Your task to perform on an android device: show emergency info Image 0: 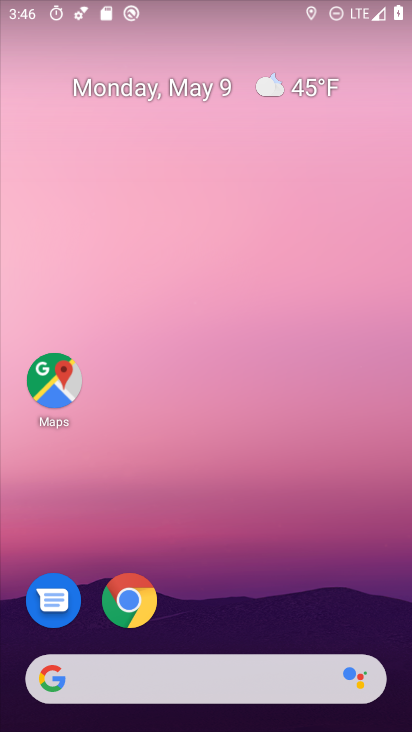
Step 0: drag from (232, 619) to (324, 10)
Your task to perform on an android device: show emergency info Image 1: 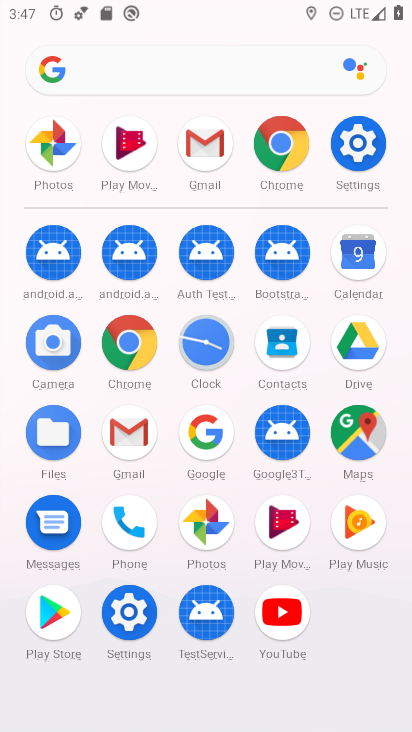
Step 1: click (363, 156)
Your task to perform on an android device: show emergency info Image 2: 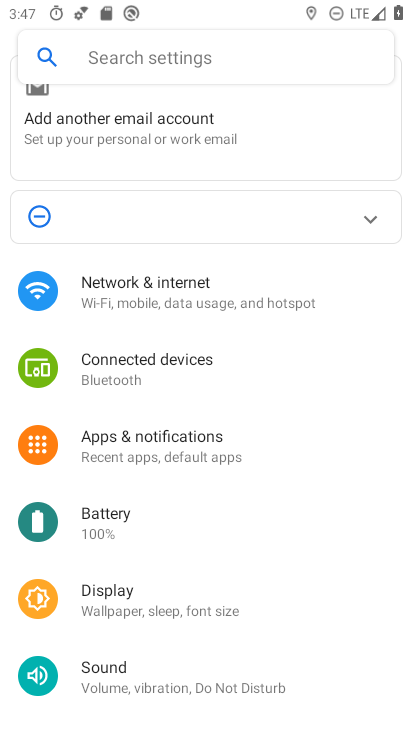
Step 2: drag from (207, 583) to (242, 132)
Your task to perform on an android device: show emergency info Image 3: 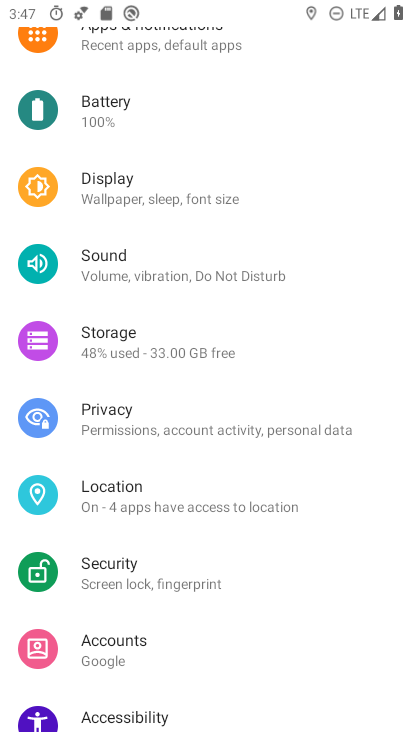
Step 3: drag from (157, 626) to (201, 160)
Your task to perform on an android device: show emergency info Image 4: 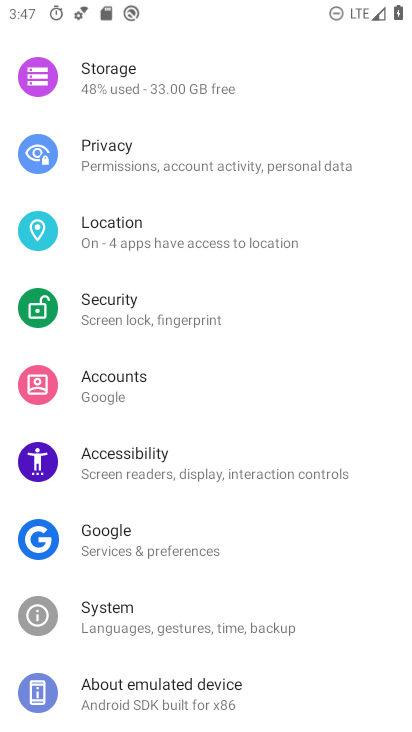
Step 4: click (167, 685)
Your task to perform on an android device: show emergency info Image 5: 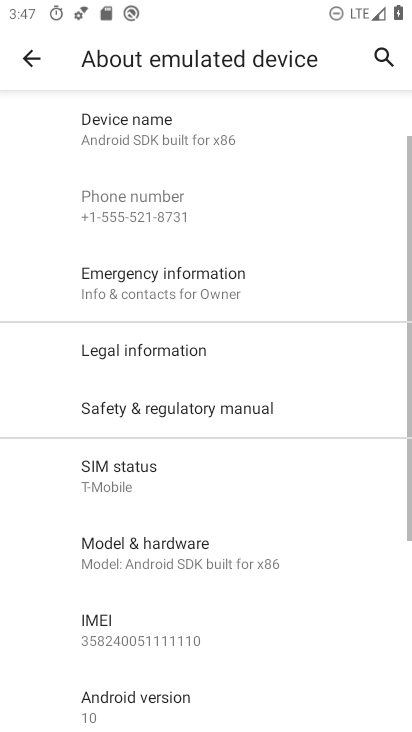
Step 5: click (204, 282)
Your task to perform on an android device: show emergency info Image 6: 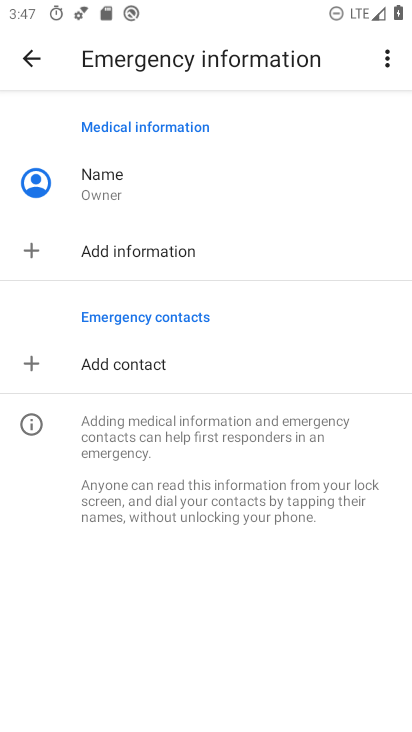
Step 6: task complete